Your task to perform on an android device: set the timer Image 0: 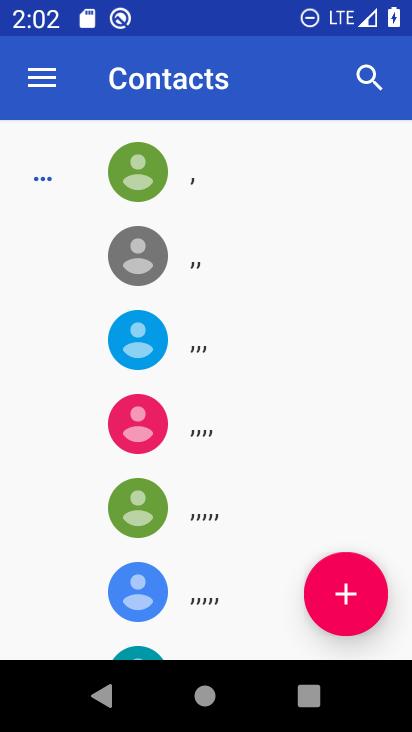
Step 0: press home button
Your task to perform on an android device: set the timer Image 1: 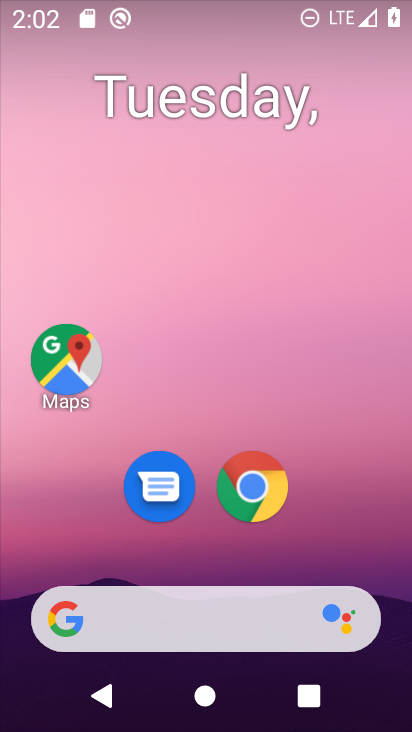
Step 1: drag from (189, 543) to (172, 32)
Your task to perform on an android device: set the timer Image 2: 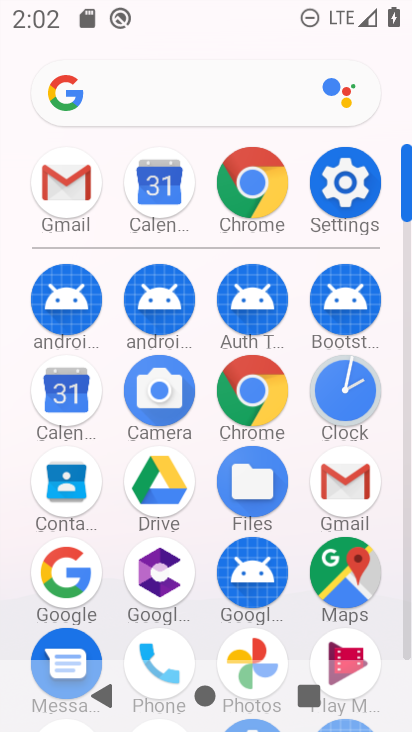
Step 2: click (333, 182)
Your task to perform on an android device: set the timer Image 3: 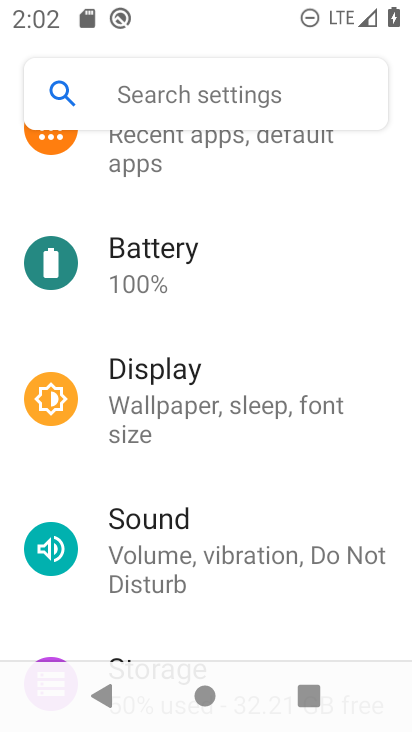
Step 3: press home button
Your task to perform on an android device: set the timer Image 4: 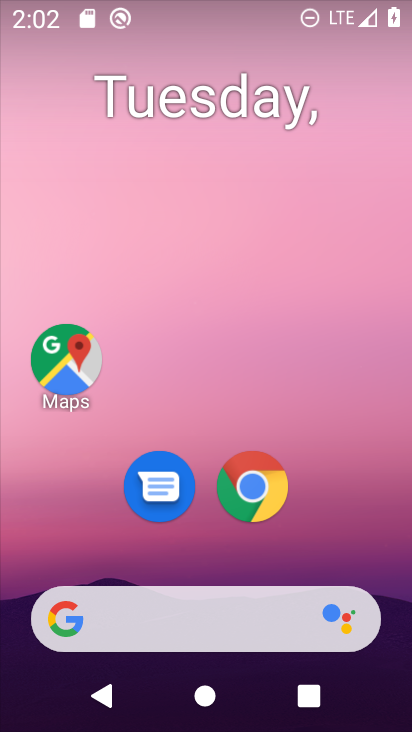
Step 4: drag from (243, 564) to (256, 171)
Your task to perform on an android device: set the timer Image 5: 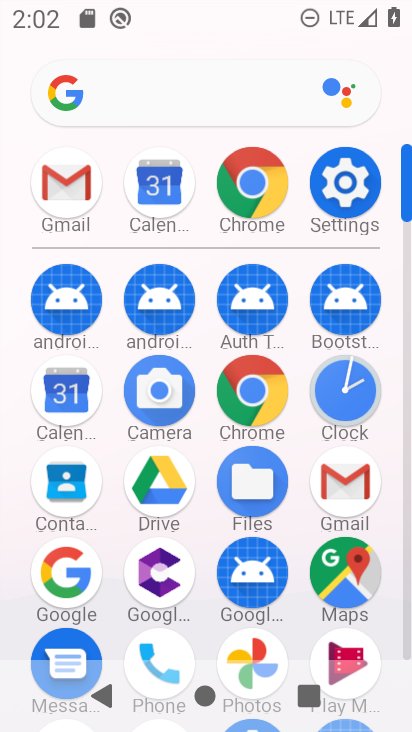
Step 5: click (352, 389)
Your task to perform on an android device: set the timer Image 6: 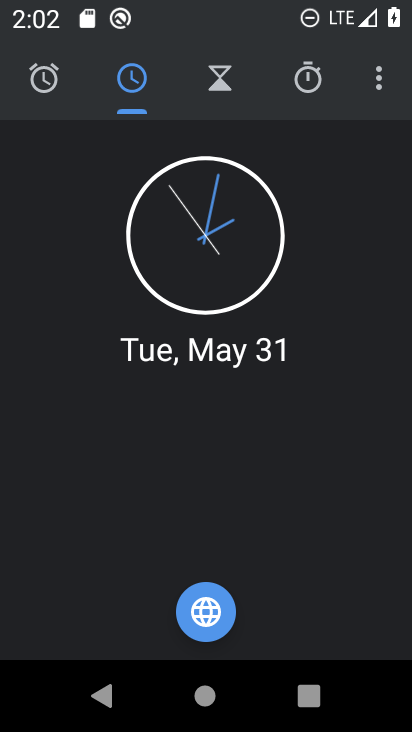
Step 6: click (391, 95)
Your task to perform on an android device: set the timer Image 7: 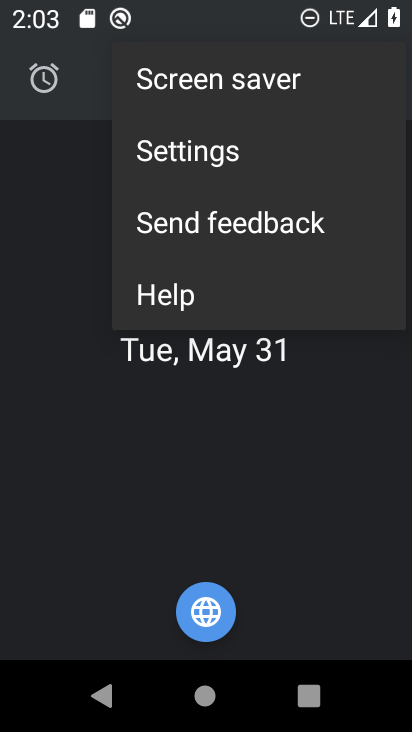
Step 7: click (270, 139)
Your task to perform on an android device: set the timer Image 8: 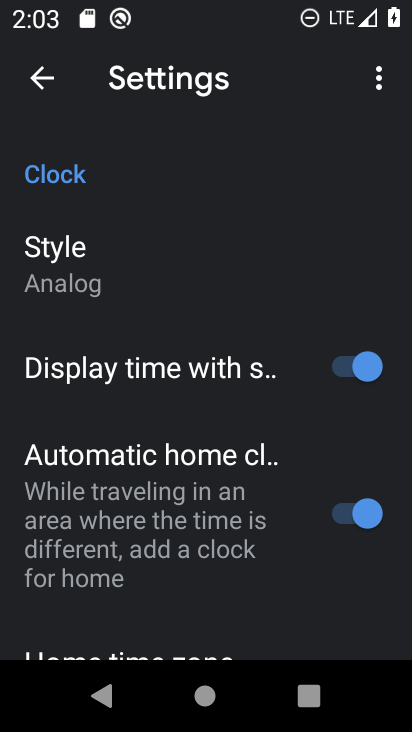
Step 8: press back button
Your task to perform on an android device: set the timer Image 9: 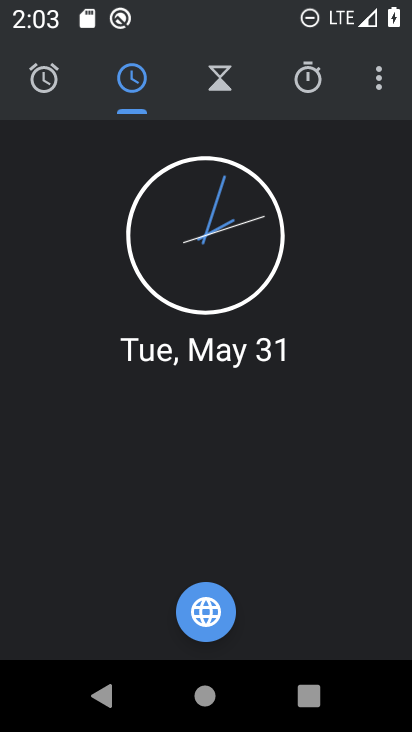
Step 9: click (245, 88)
Your task to perform on an android device: set the timer Image 10: 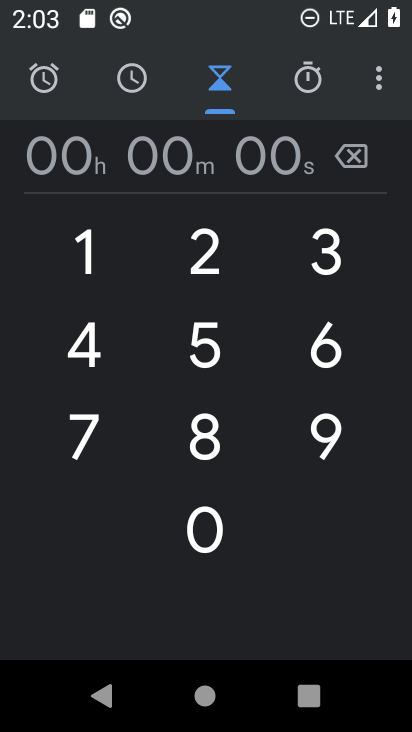
Step 10: click (230, 343)
Your task to perform on an android device: set the timer Image 11: 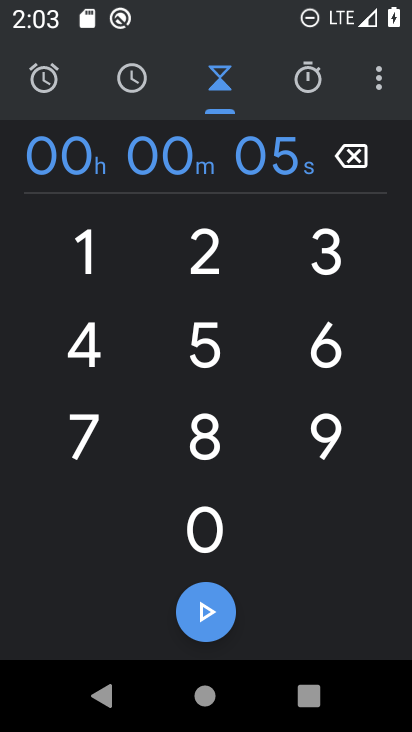
Step 11: click (230, 343)
Your task to perform on an android device: set the timer Image 12: 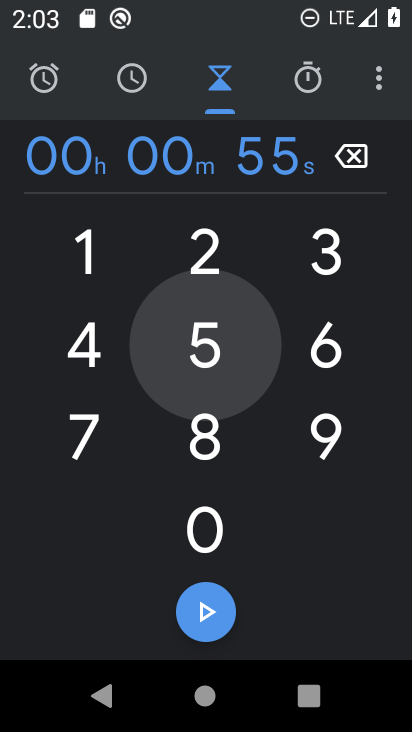
Step 12: click (230, 343)
Your task to perform on an android device: set the timer Image 13: 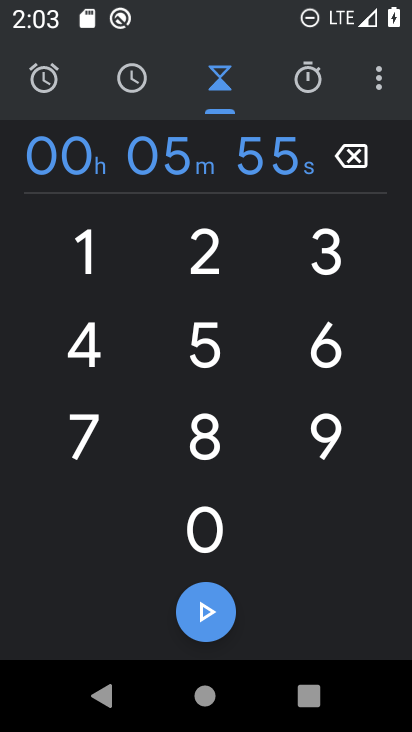
Step 13: click (215, 614)
Your task to perform on an android device: set the timer Image 14: 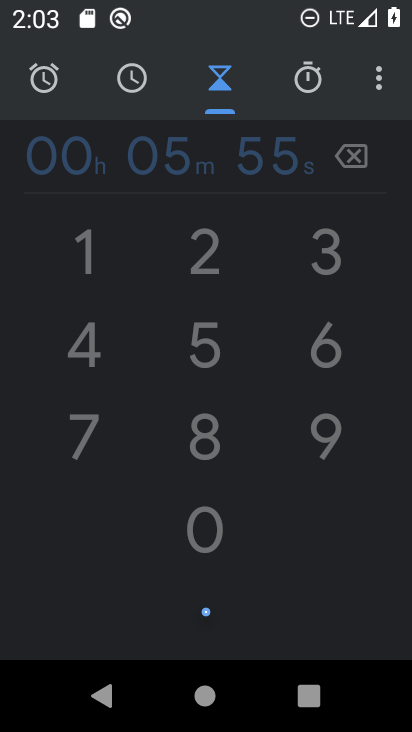
Step 14: task complete